Your task to perform on an android device: visit the assistant section in the google photos Image 0: 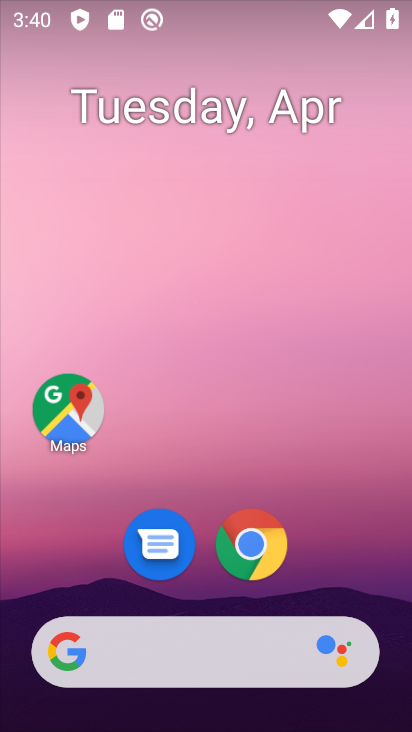
Step 0: drag from (186, 545) to (282, 4)
Your task to perform on an android device: visit the assistant section in the google photos Image 1: 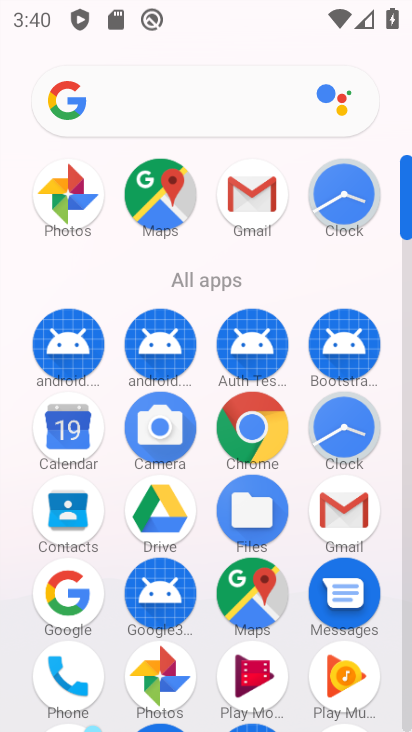
Step 1: click (154, 672)
Your task to perform on an android device: visit the assistant section in the google photos Image 2: 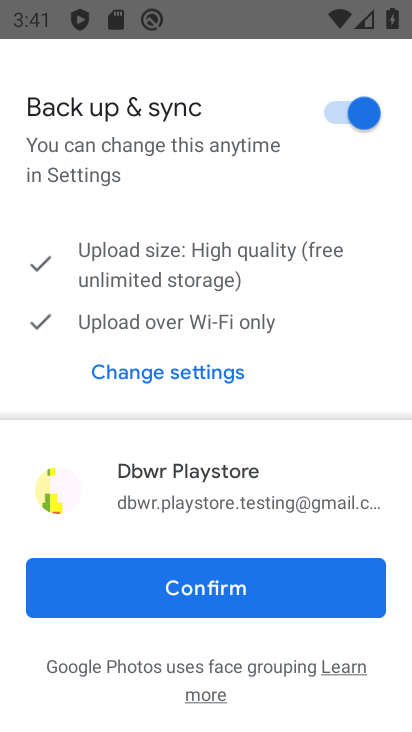
Step 2: click (239, 600)
Your task to perform on an android device: visit the assistant section in the google photos Image 3: 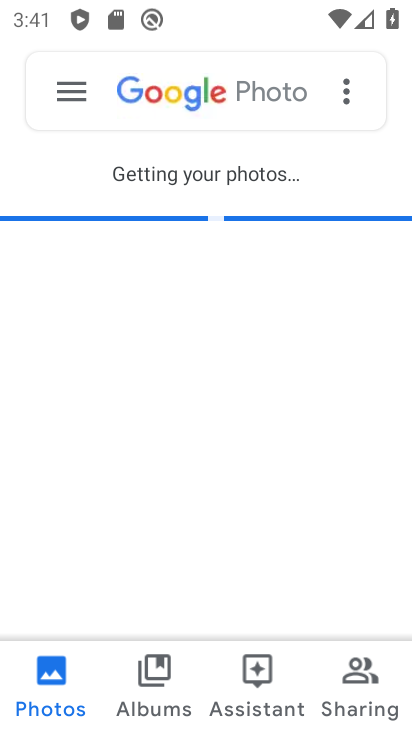
Step 3: click (261, 686)
Your task to perform on an android device: visit the assistant section in the google photos Image 4: 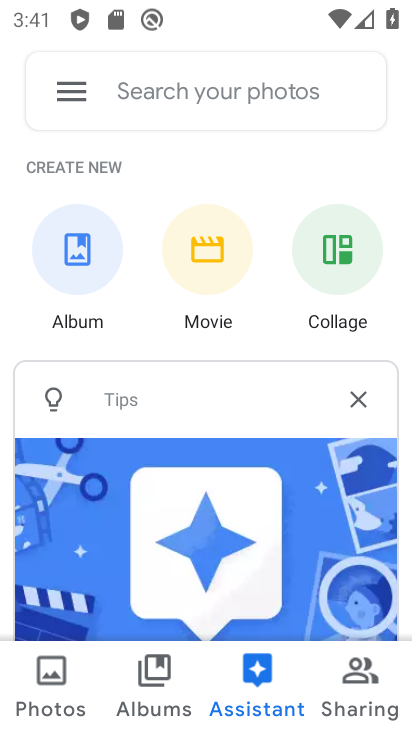
Step 4: task complete